Your task to perform on an android device: find which apps use the phone's location Image 0: 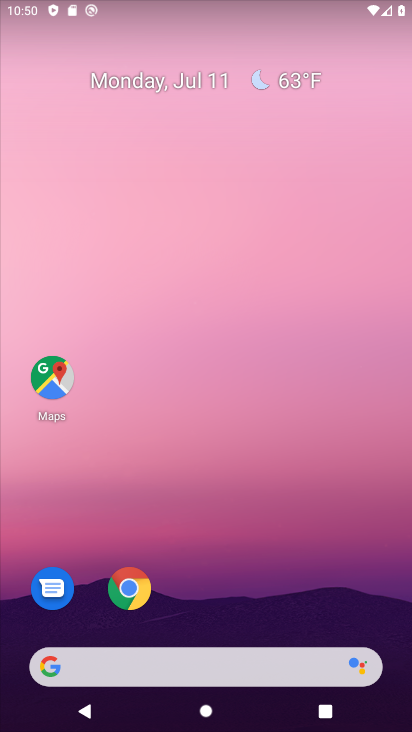
Step 0: click (245, 728)
Your task to perform on an android device: find which apps use the phone's location Image 1: 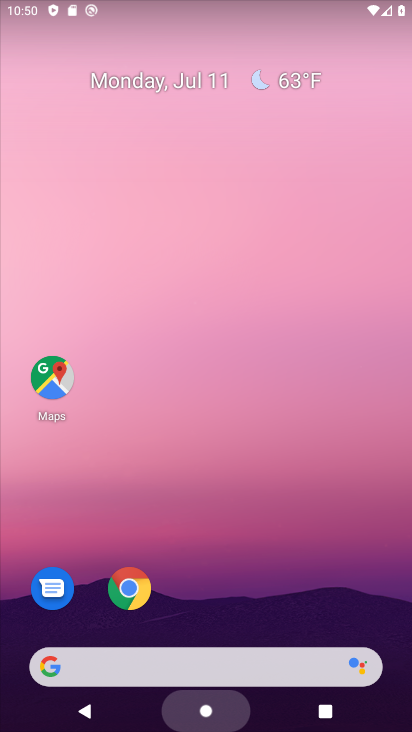
Step 1: drag from (222, 101) to (220, 60)
Your task to perform on an android device: find which apps use the phone's location Image 2: 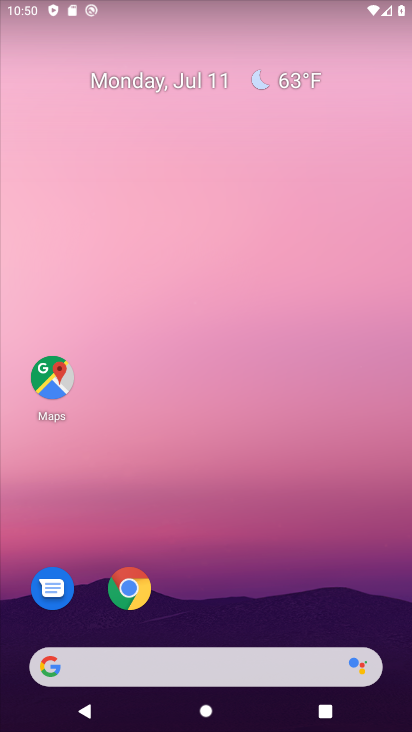
Step 2: drag from (245, 703) to (193, 70)
Your task to perform on an android device: find which apps use the phone's location Image 3: 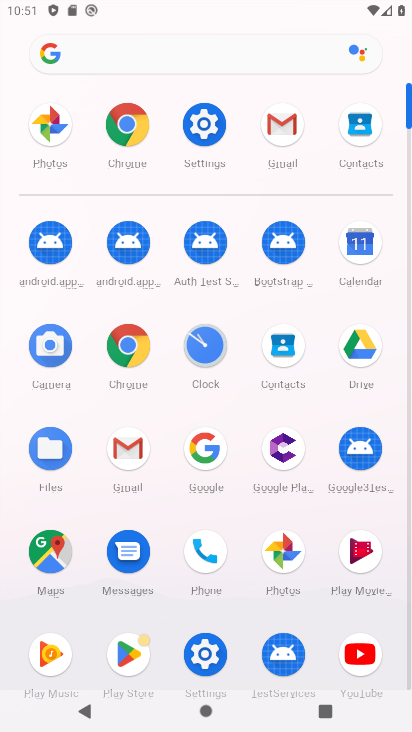
Step 3: click (201, 120)
Your task to perform on an android device: find which apps use the phone's location Image 4: 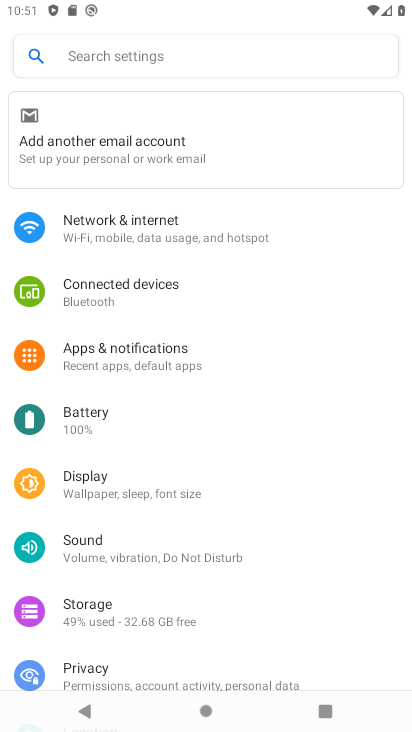
Step 4: drag from (140, 655) to (129, 316)
Your task to perform on an android device: find which apps use the phone's location Image 5: 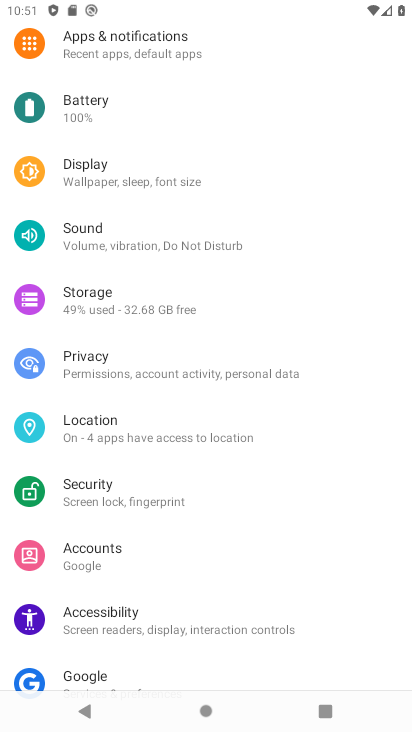
Step 5: click (98, 418)
Your task to perform on an android device: find which apps use the phone's location Image 6: 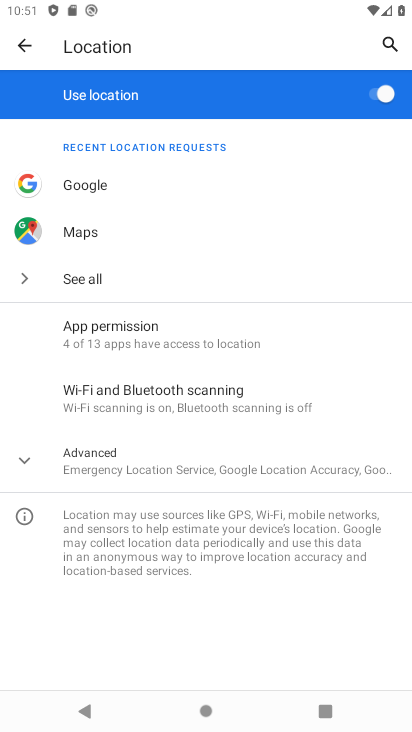
Step 6: click (86, 328)
Your task to perform on an android device: find which apps use the phone's location Image 7: 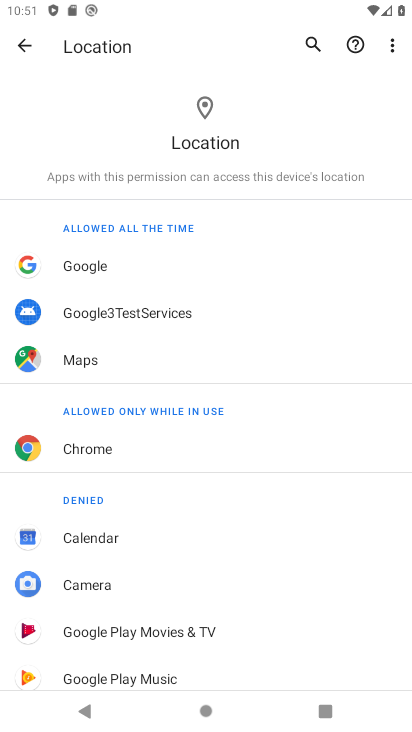
Step 7: task complete